Your task to perform on an android device: star an email in the gmail app Image 0: 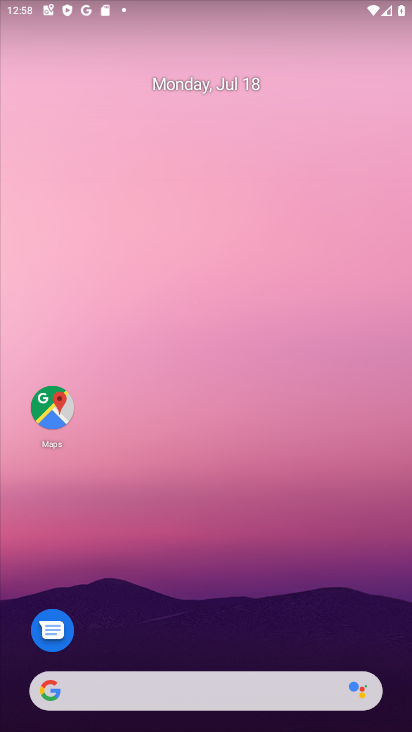
Step 0: drag from (178, 636) to (355, 23)
Your task to perform on an android device: star an email in the gmail app Image 1: 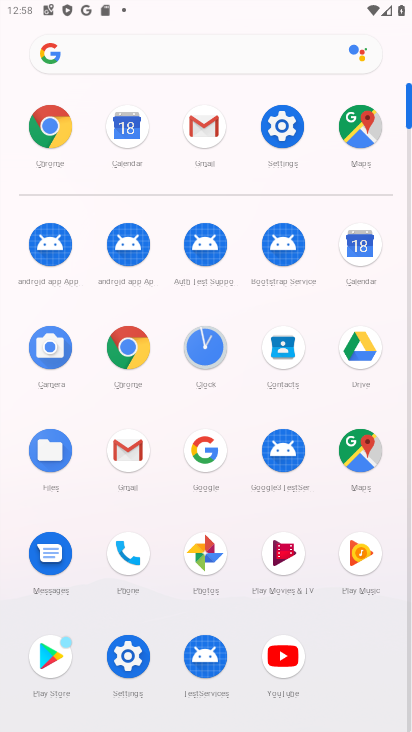
Step 1: click (138, 444)
Your task to perform on an android device: star an email in the gmail app Image 2: 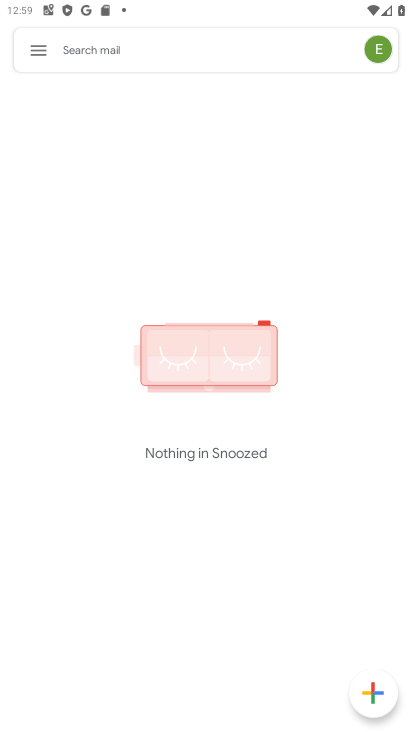
Step 2: press home button
Your task to perform on an android device: star an email in the gmail app Image 3: 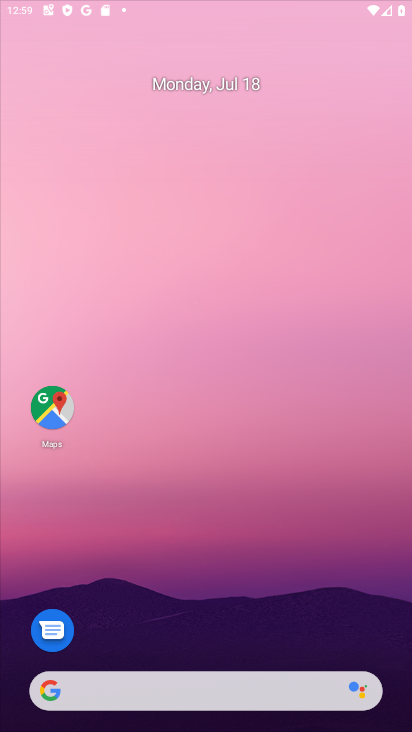
Step 3: drag from (208, 706) to (317, 4)
Your task to perform on an android device: star an email in the gmail app Image 4: 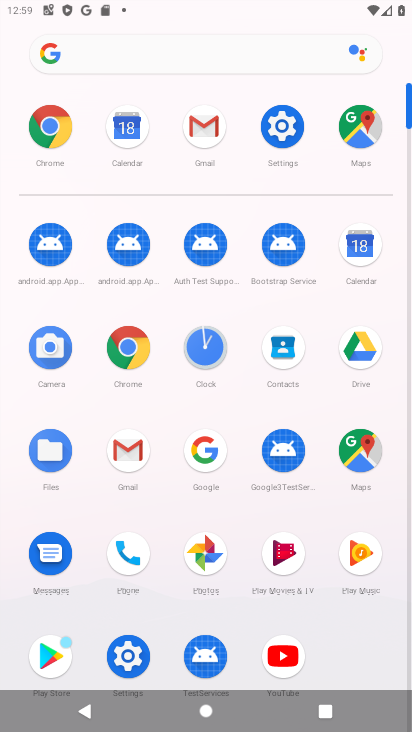
Step 4: click (130, 446)
Your task to perform on an android device: star an email in the gmail app Image 5: 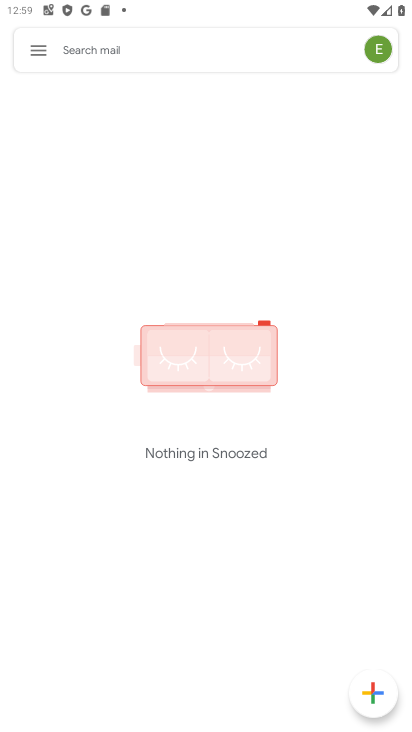
Step 5: click (48, 45)
Your task to perform on an android device: star an email in the gmail app Image 6: 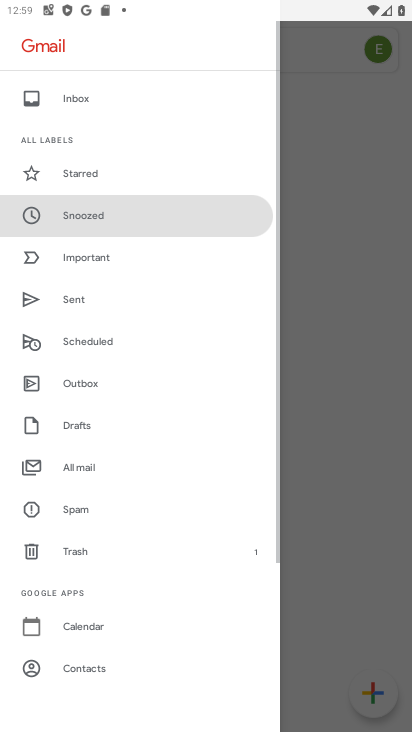
Step 6: click (95, 178)
Your task to perform on an android device: star an email in the gmail app Image 7: 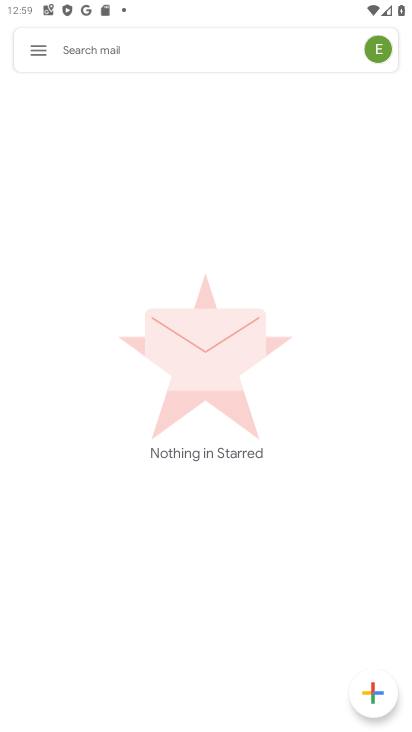
Step 7: task complete